Your task to perform on an android device: Toggle the flashlight Image 0: 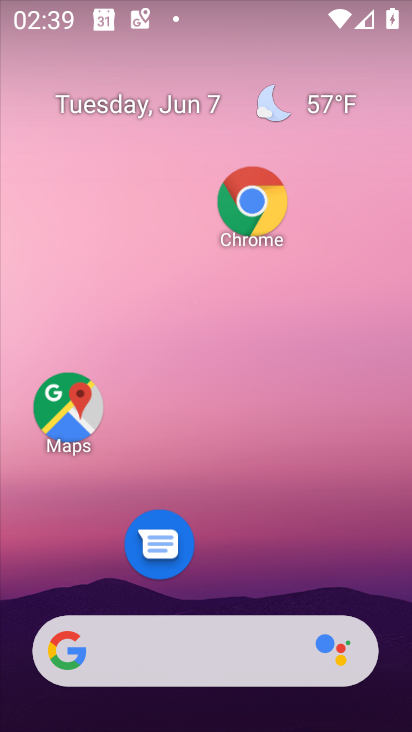
Step 0: drag from (301, 507) to (323, 152)
Your task to perform on an android device: Toggle the flashlight Image 1: 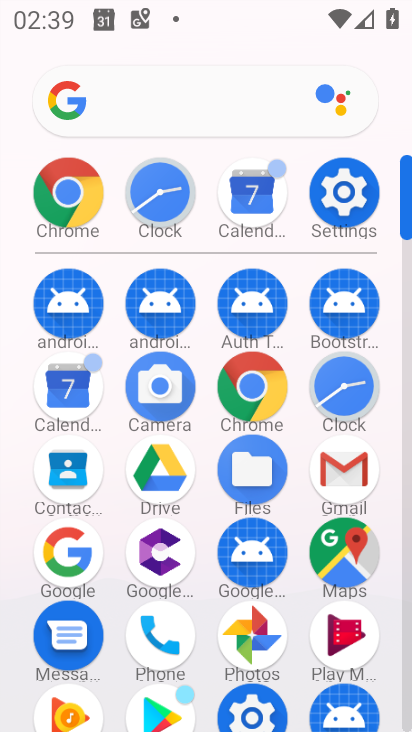
Step 1: click (307, 189)
Your task to perform on an android device: Toggle the flashlight Image 2: 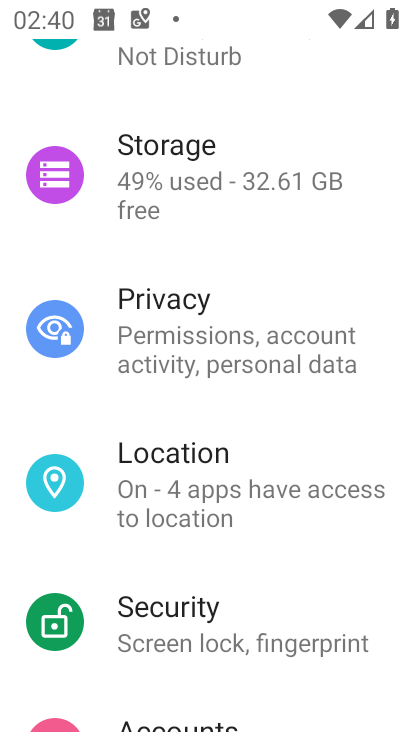
Step 2: task complete